Your task to perform on an android device: turn off smart reply in the gmail app Image 0: 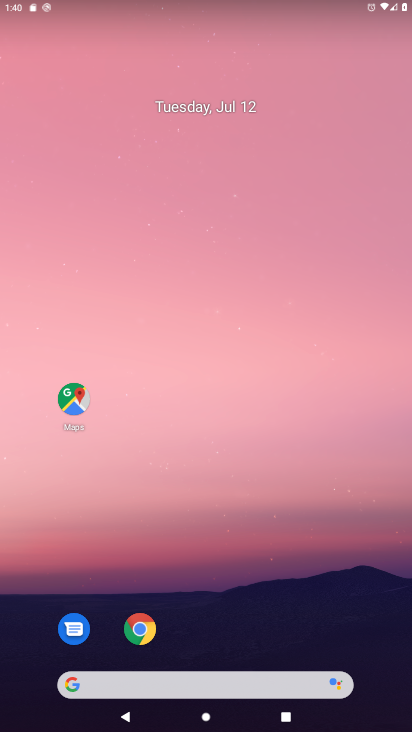
Step 0: drag from (322, 697) to (404, 6)
Your task to perform on an android device: turn off smart reply in the gmail app Image 1: 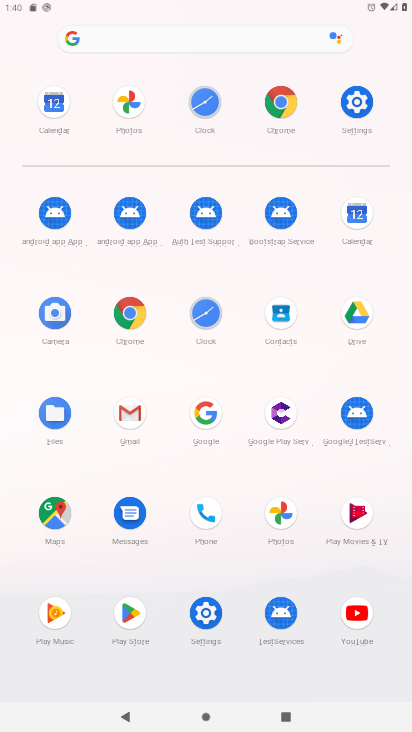
Step 1: click (121, 412)
Your task to perform on an android device: turn off smart reply in the gmail app Image 2: 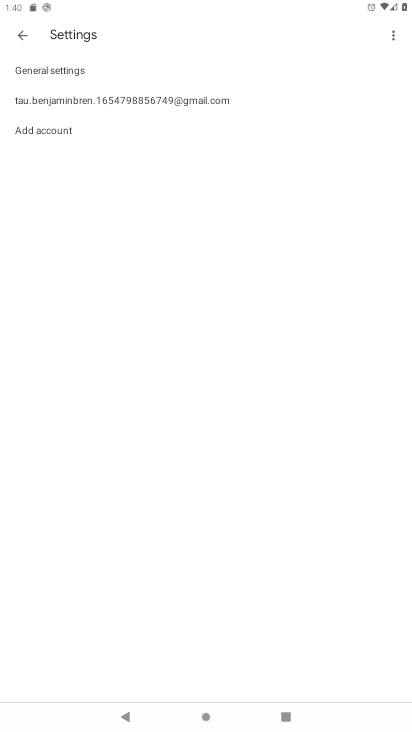
Step 2: click (176, 98)
Your task to perform on an android device: turn off smart reply in the gmail app Image 3: 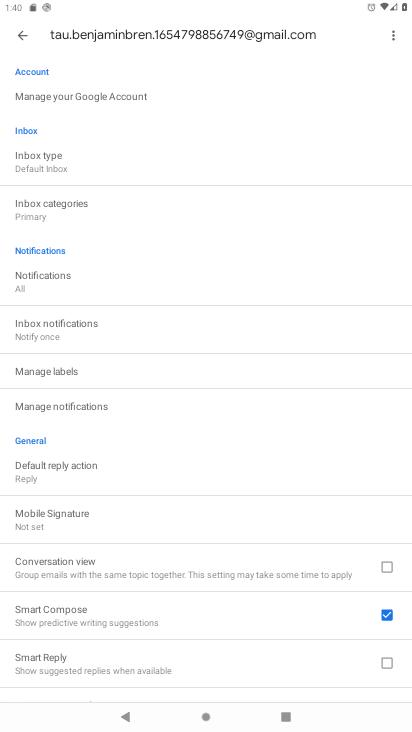
Step 3: task complete